Your task to perform on an android device: Search for top rated seafood restaurants on Google Maps Image 0: 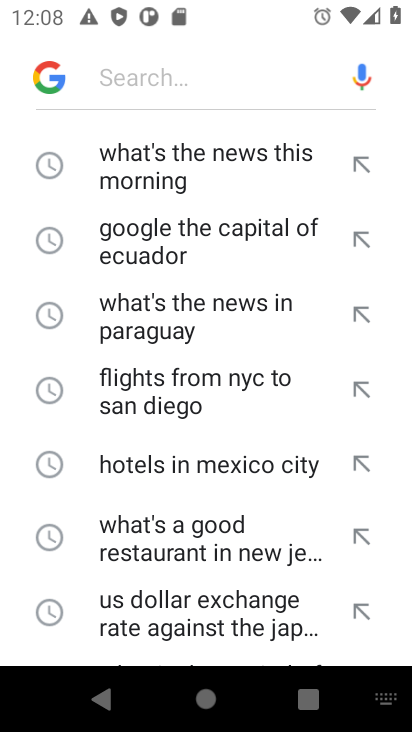
Step 0: press home button
Your task to perform on an android device: Search for top rated seafood restaurants on Google Maps Image 1: 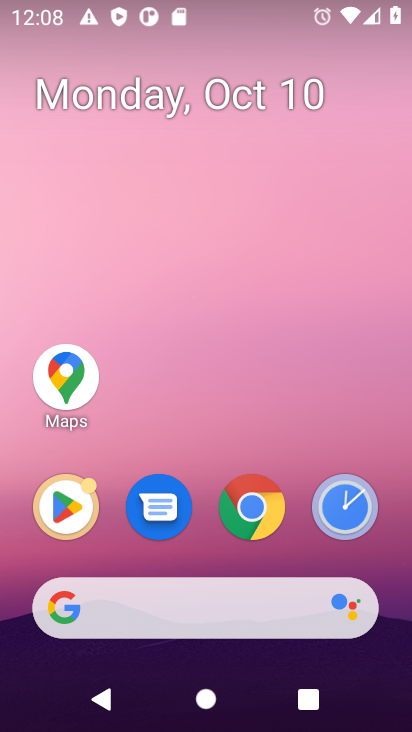
Step 1: click (206, 602)
Your task to perform on an android device: Search for top rated seafood restaurants on Google Maps Image 2: 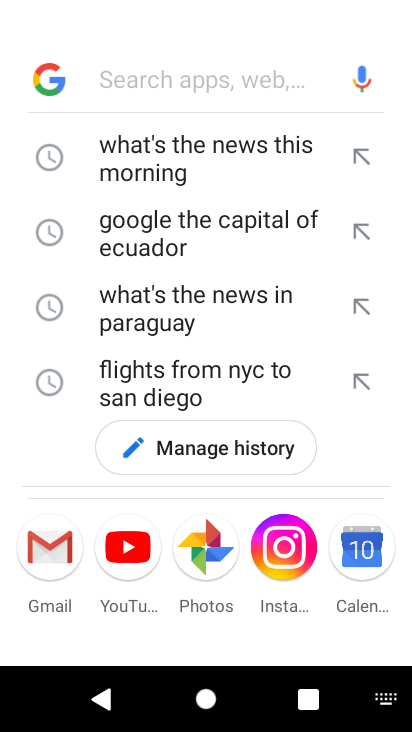
Step 2: press home button
Your task to perform on an android device: Search for top rated seafood restaurants on Google Maps Image 3: 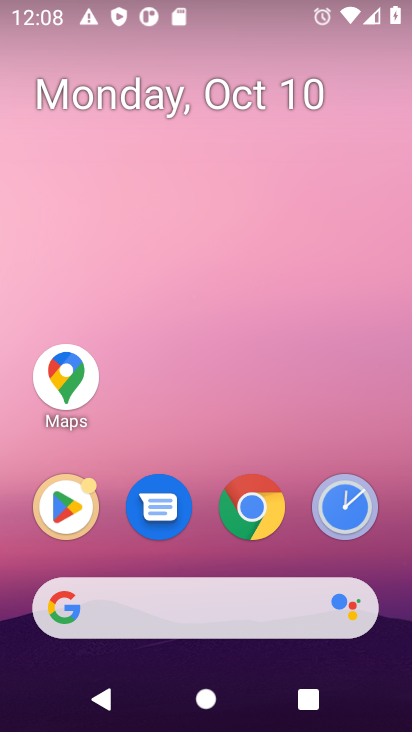
Step 3: drag from (360, 442) to (334, 32)
Your task to perform on an android device: Search for top rated seafood restaurants on Google Maps Image 4: 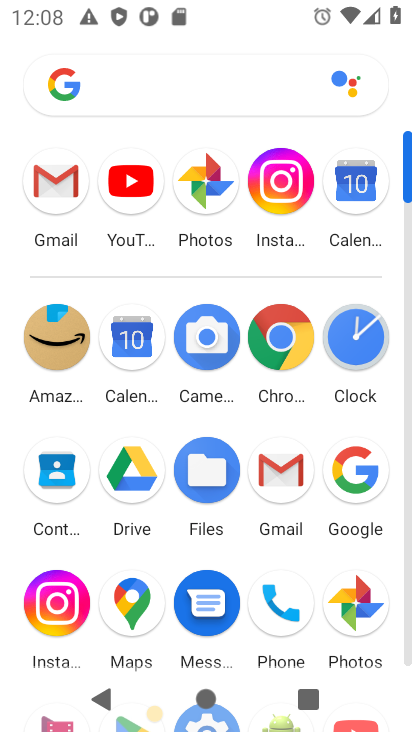
Step 4: click (143, 591)
Your task to perform on an android device: Search for top rated seafood restaurants on Google Maps Image 5: 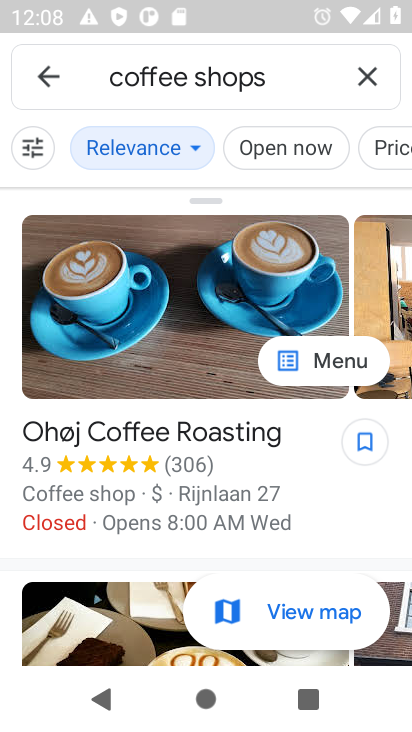
Step 5: press back button
Your task to perform on an android device: Search for top rated seafood restaurants on Google Maps Image 6: 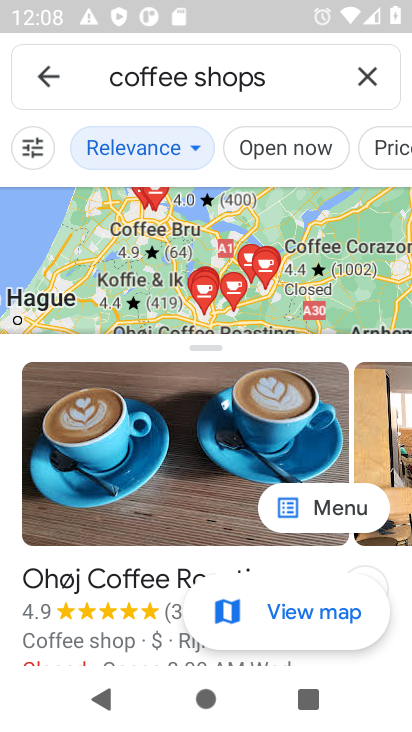
Step 6: click (351, 74)
Your task to perform on an android device: Search for top rated seafood restaurants on Google Maps Image 7: 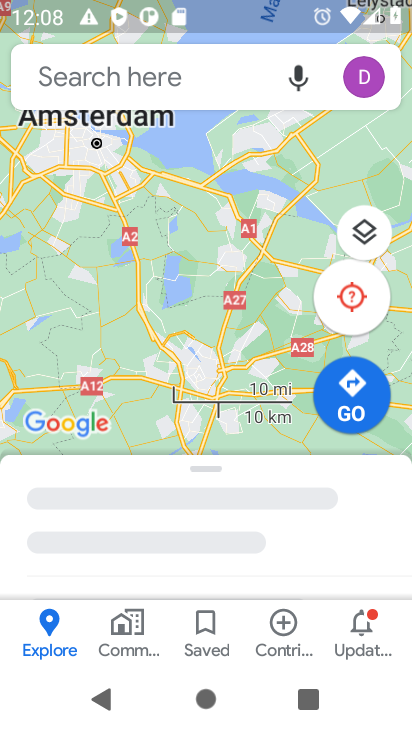
Step 7: click (368, 75)
Your task to perform on an android device: Search for top rated seafood restaurants on Google Maps Image 8: 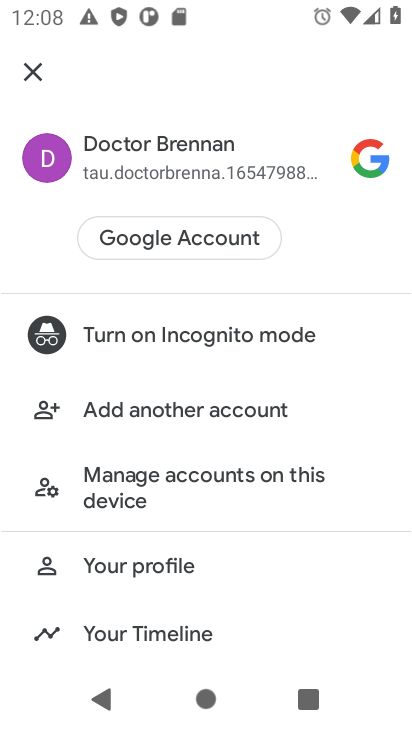
Step 8: click (29, 64)
Your task to perform on an android device: Search for top rated seafood restaurants on Google Maps Image 9: 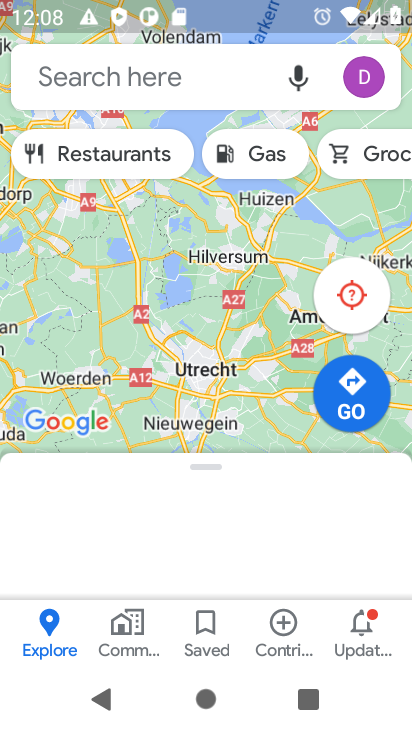
Step 9: click (168, 74)
Your task to perform on an android device: Search for top rated seafood restaurants on Google Maps Image 10: 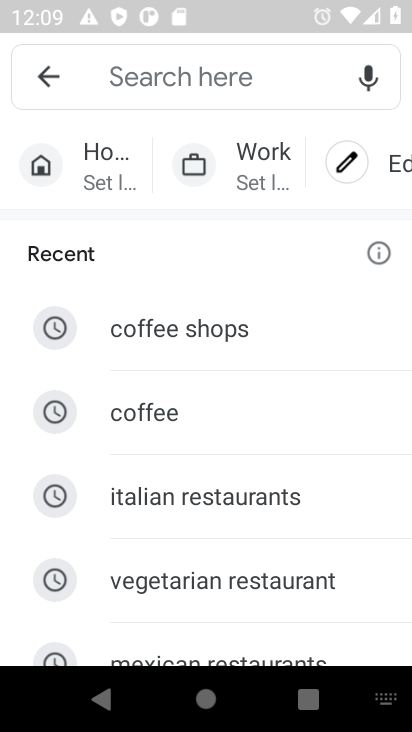
Step 10: type "seafood restaurants"
Your task to perform on an android device: Search for top rated seafood restaurants on Google Maps Image 11: 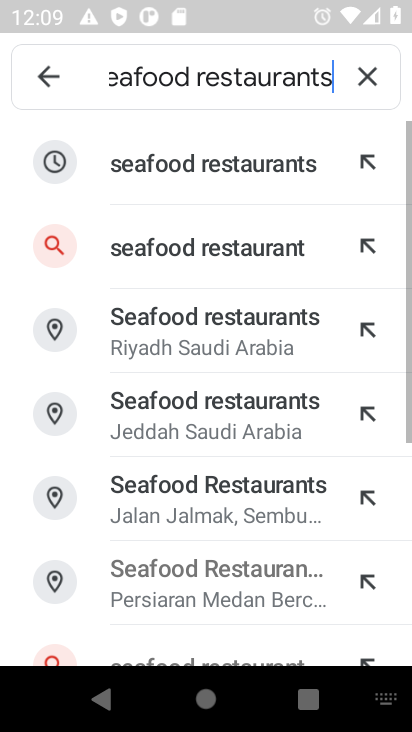
Step 11: press enter
Your task to perform on an android device: Search for top rated seafood restaurants on Google Maps Image 12: 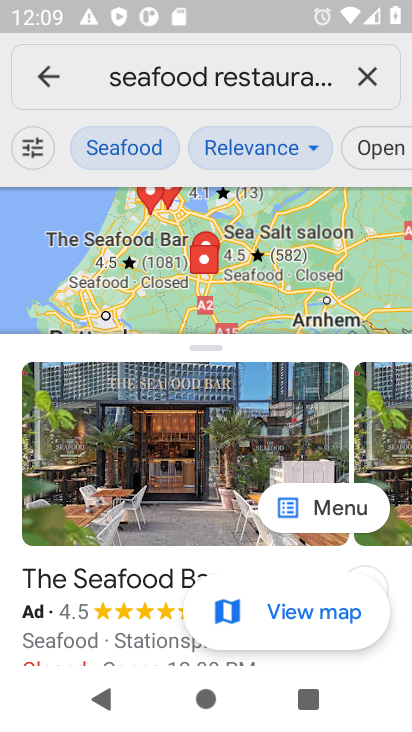
Step 12: task complete